Your task to perform on an android device: Show the shopping cart on ebay.com. Add "bose soundsport free" to the cart on ebay.com, then select checkout. Image 0: 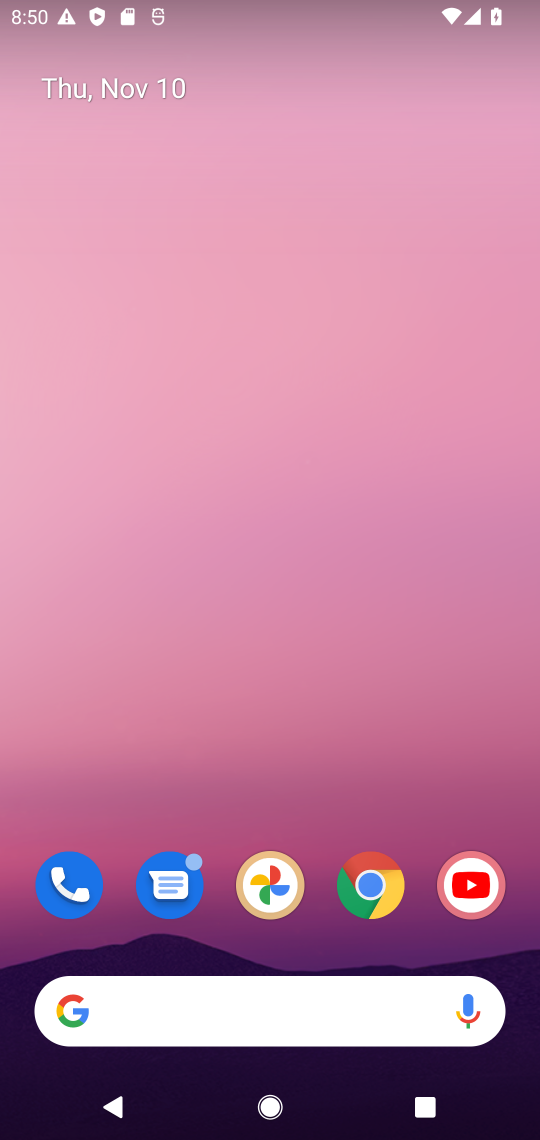
Step 0: click (369, 897)
Your task to perform on an android device: Show the shopping cart on ebay.com. Add "bose soundsport free" to the cart on ebay.com, then select checkout. Image 1: 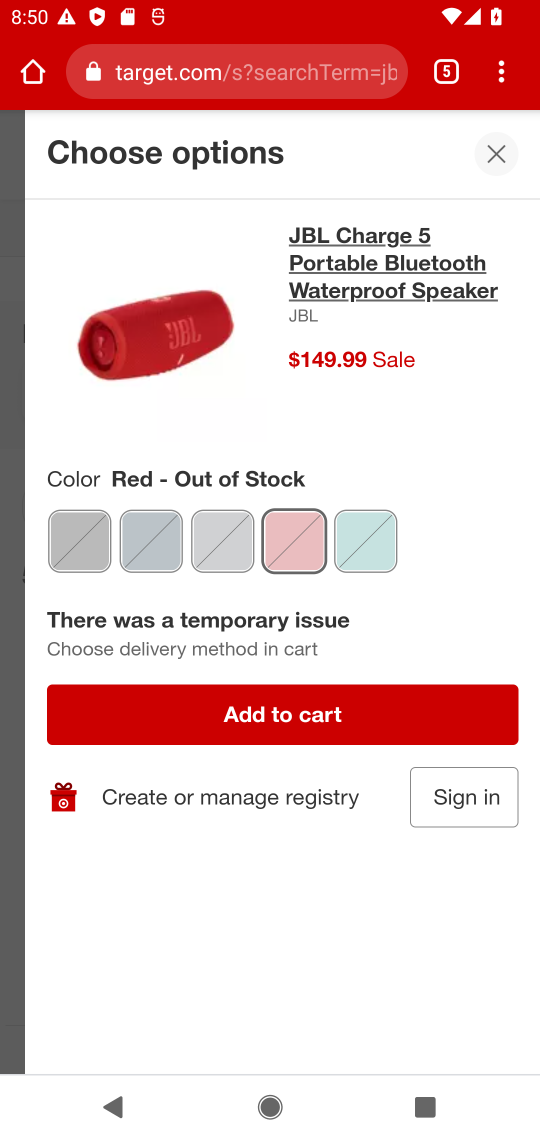
Step 1: click (450, 79)
Your task to perform on an android device: Show the shopping cart on ebay.com. Add "bose soundsport free" to the cart on ebay.com, then select checkout. Image 2: 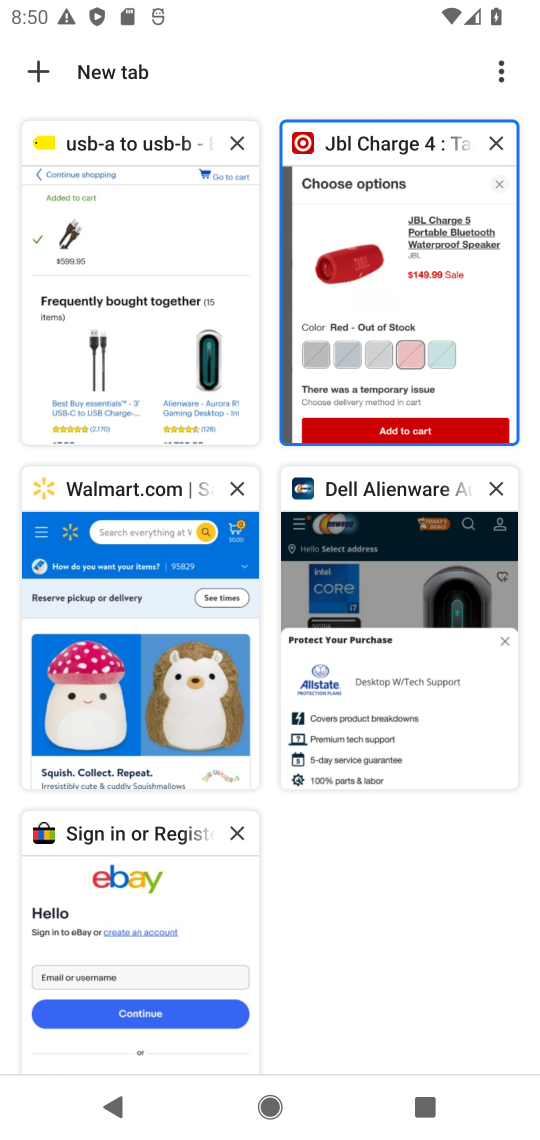
Step 2: click (89, 910)
Your task to perform on an android device: Show the shopping cart on ebay.com. Add "bose soundsport free" to the cart on ebay.com, then select checkout. Image 3: 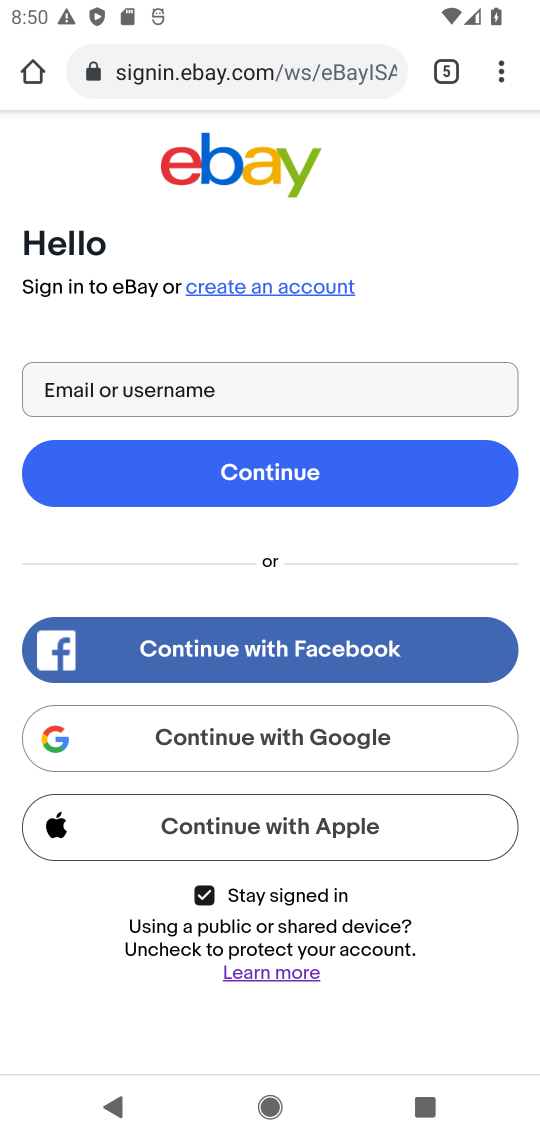
Step 3: press back button
Your task to perform on an android device: Show the shopping cart on ebay.com. Add "bose soundsport free" to the cart on ebay.com, then select checkout. Image 4: 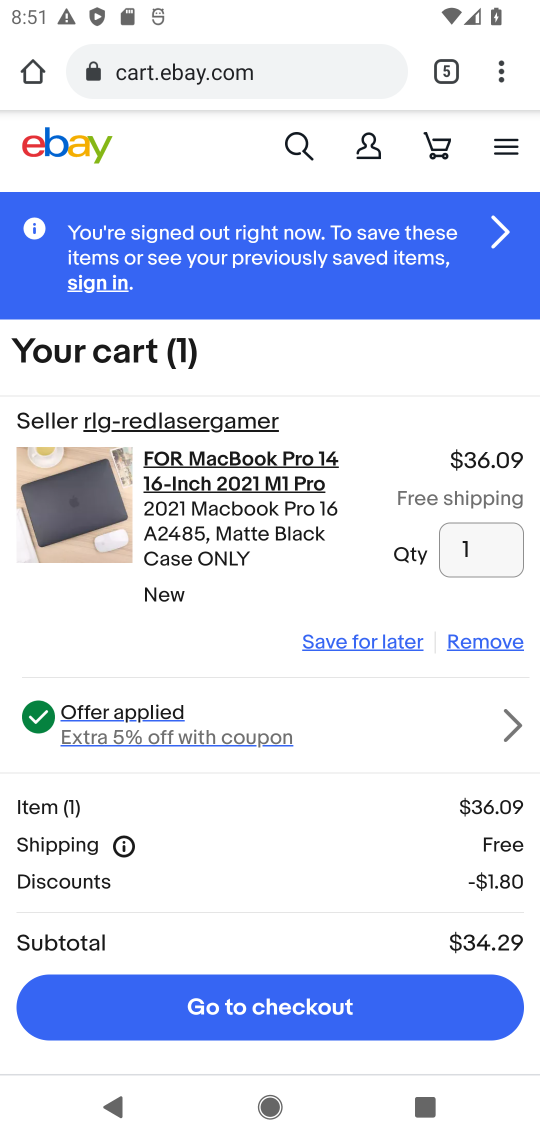
Step 4: click (290, 148)
Your task to perform on an android device: Show the shopping cart on ebay.com. Add "bose soundsport free" to the cart on ebay.com, then select checkout. Image 5: 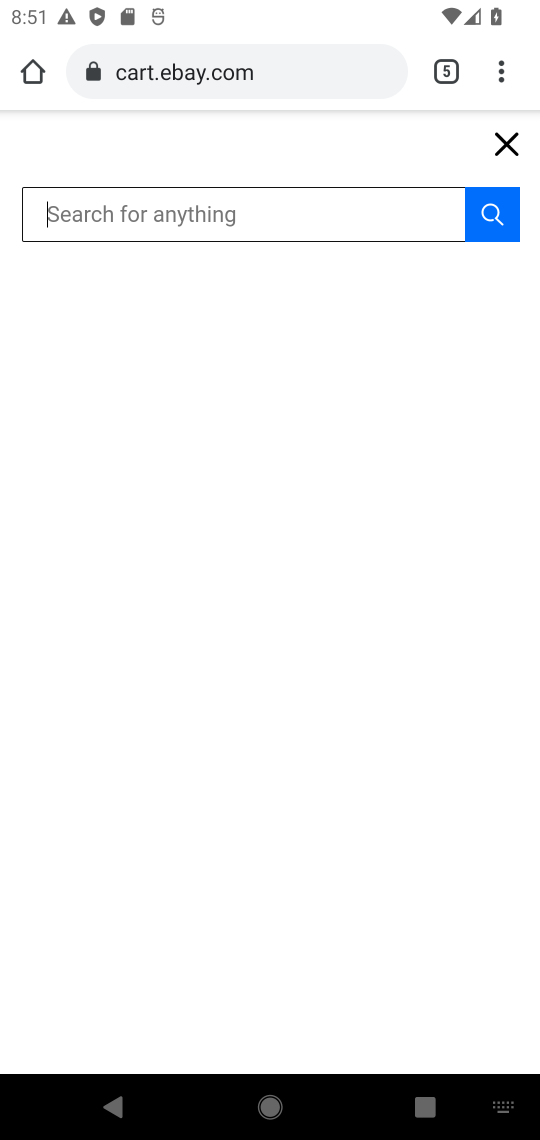
Step 5: type "bose soundsport free"
Your task to perform on an android device: Show the shopping cart on ebay.com. Add "bose soundsport free" to the cart on ebay.com, then select checkout. Image 6: 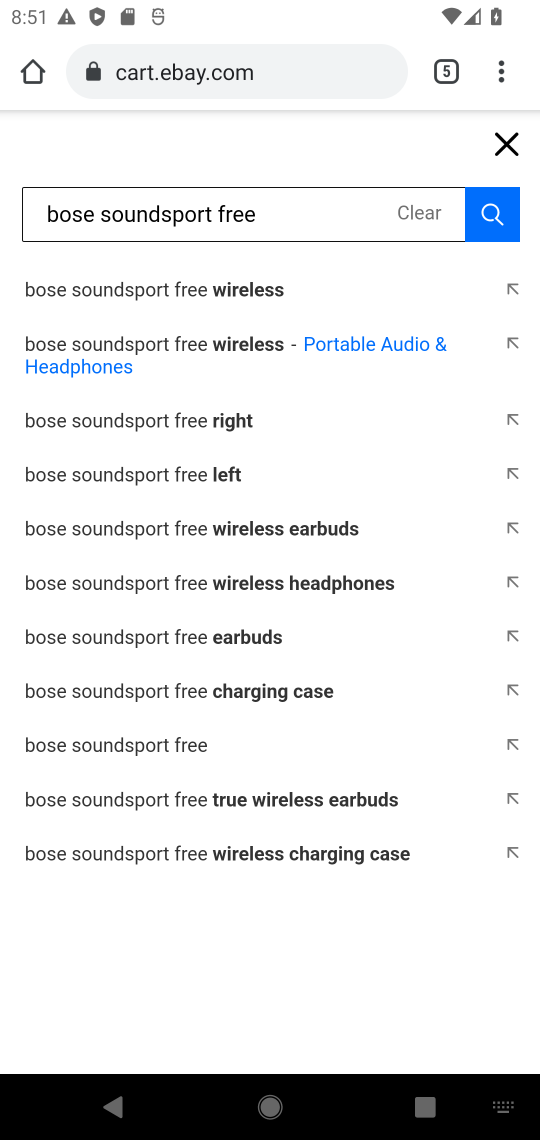
Step 6: click (199, 340)
Your task to perform on an android device: Show the shopping cart on ebay.com. Add "bose soundsport free" to the cart on ebay.com, then select checkout. Image 7: 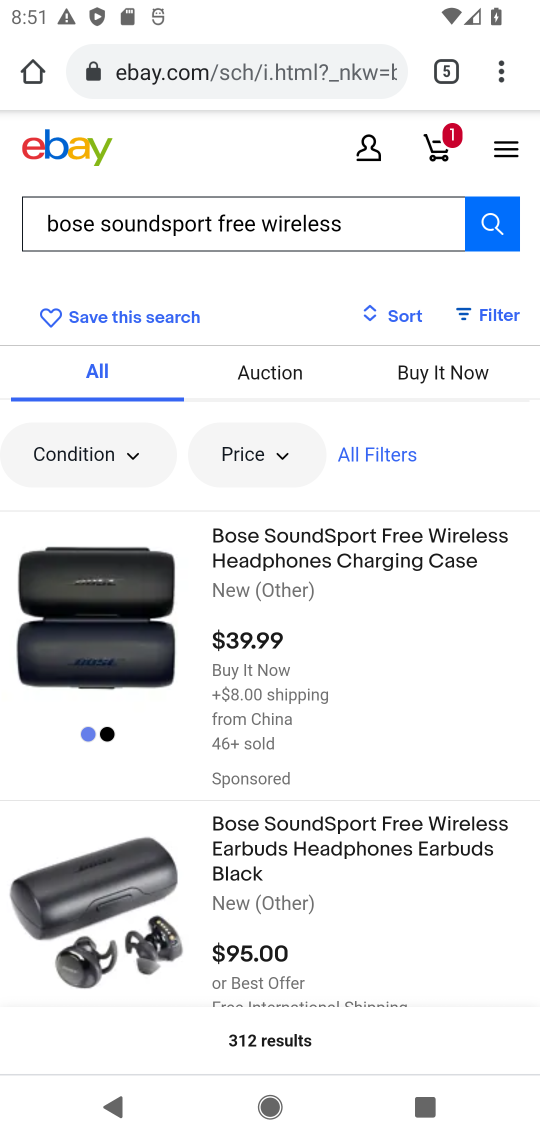
Step 7: click (356, 555)
Your task to perform on an android device: Show the shopping cart on ebay.com. Add "bose soundsport free" to the cart on ebay.com, then select checkout. Image 8: 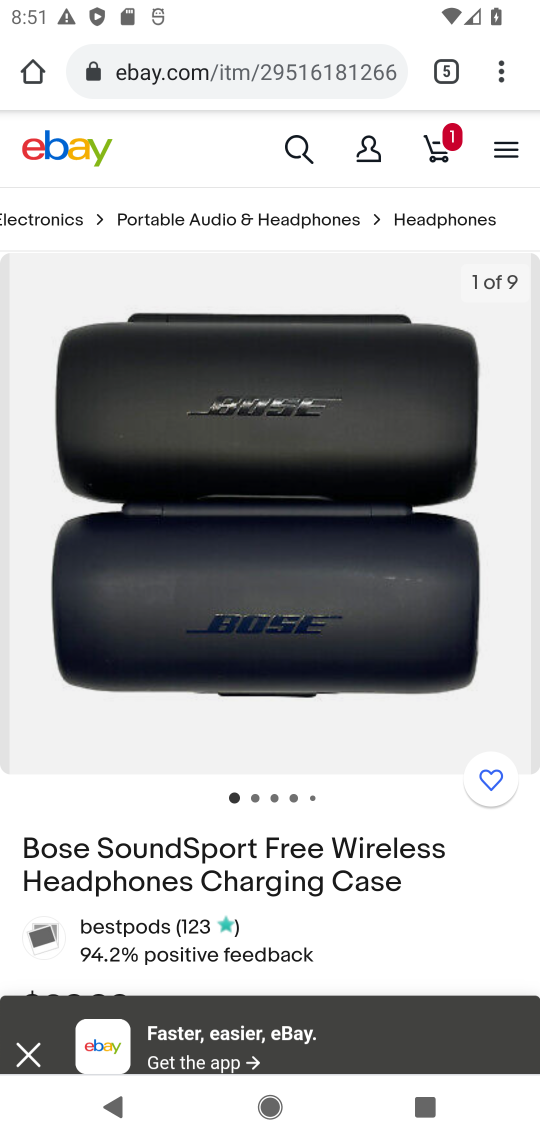
Step 8: drag from (394, 921) to (488, 362)
Your task to perform on an android device: Show the shopping cart on ebay.com. Add "bose soundsport free" to the cart on ebay.com, then select checkout. Image 9: 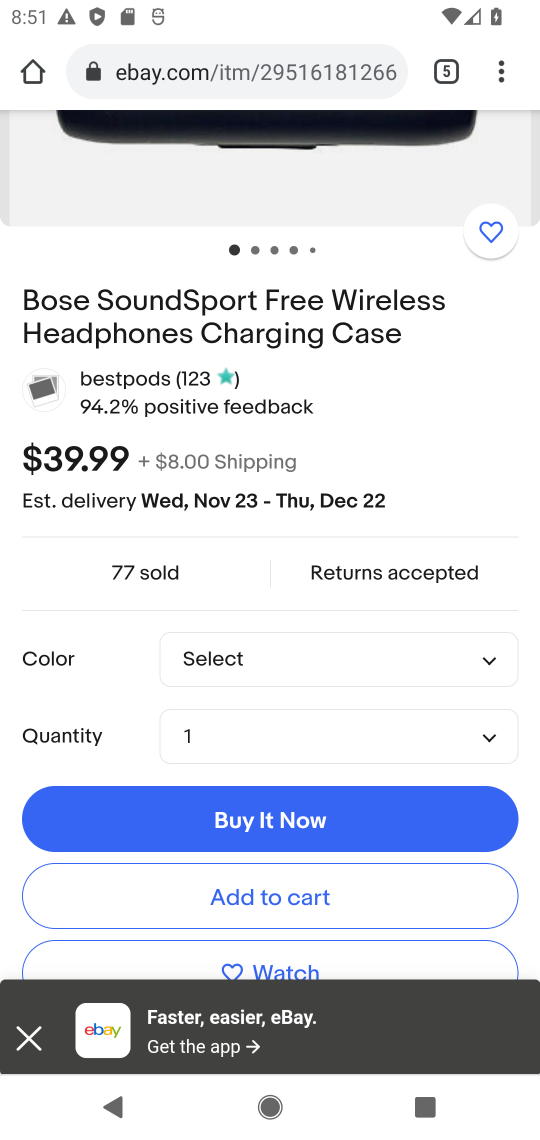
Step 9: click (23, 1045)
Your task to perform on an android device: Show the shopping cart on ebay.com. Add "bose soundsport free" to the cart on ebay.com, then select checkout. Image 10: 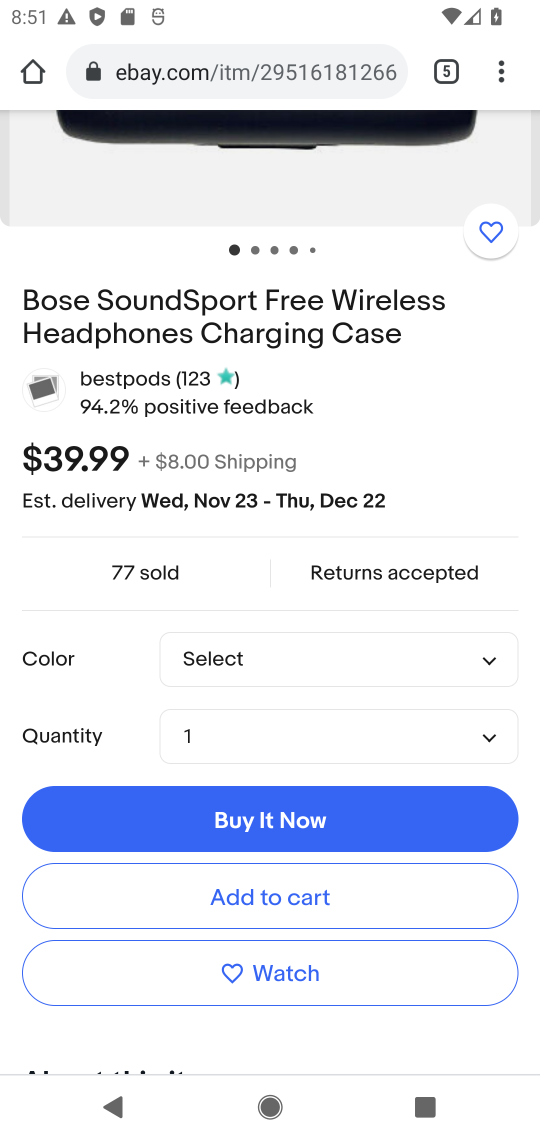
Step 10: click (295, 897)
Your task to perform on an android device: Show the shopping cart on ebay.com. Add "bose soundsport free" to the cart on ebay.com, then select checkout. Image 11: 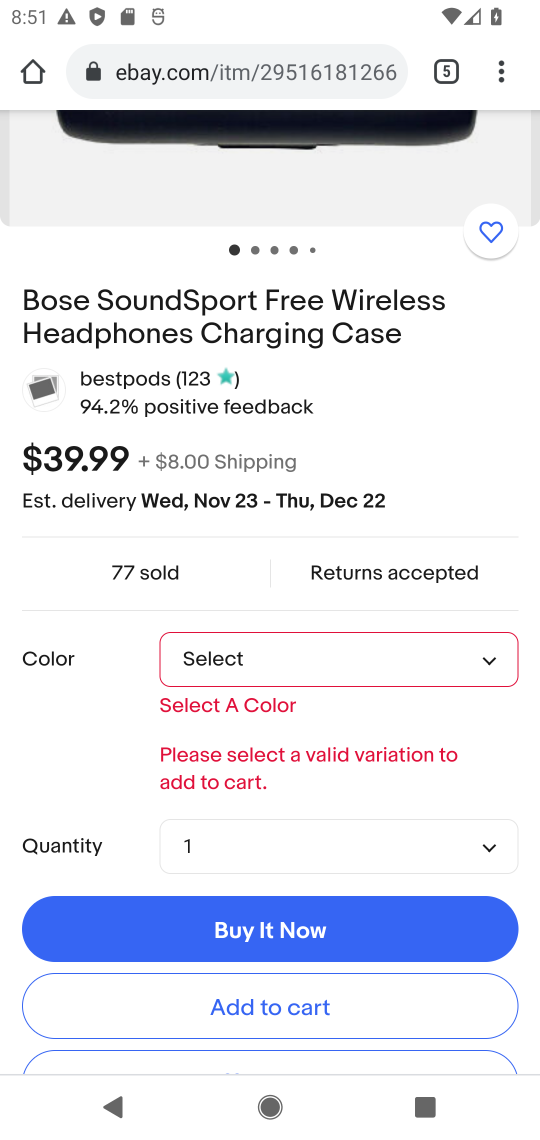
Step 11: click (496, 661)
Your task to perform on an android device: Show the shopping cart on ebay.com. Add "bose soundsport free" to the cart on ebay.com, then select checkout. Image 12: 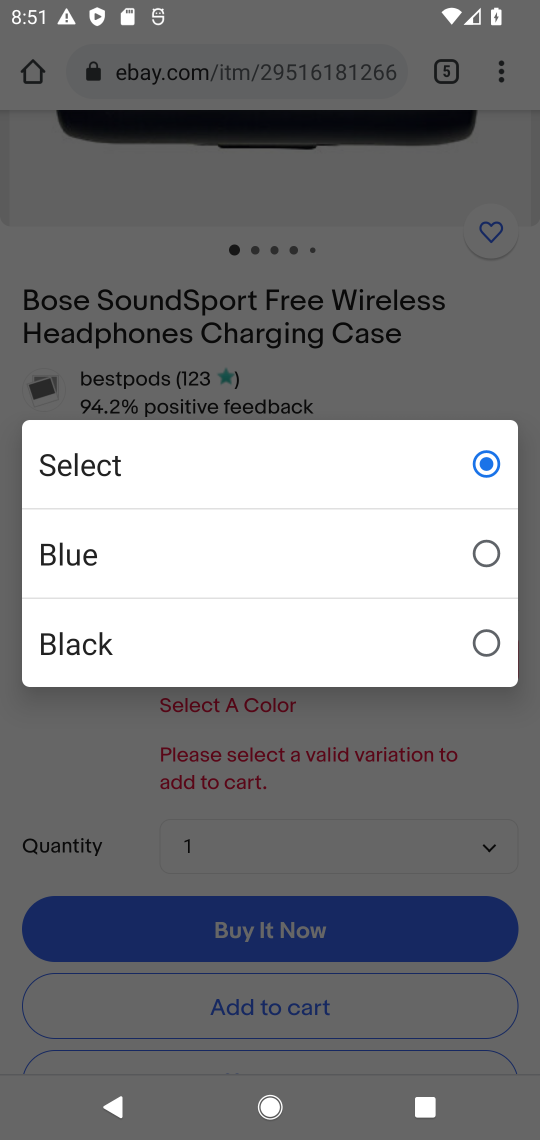
Step 12: click (492, 554)
Your task to perform on an android device: Show the shopping cart on ebay.com. Add "bose soundsport free" to the cart on ebay.com, then select checkout. Image 13: 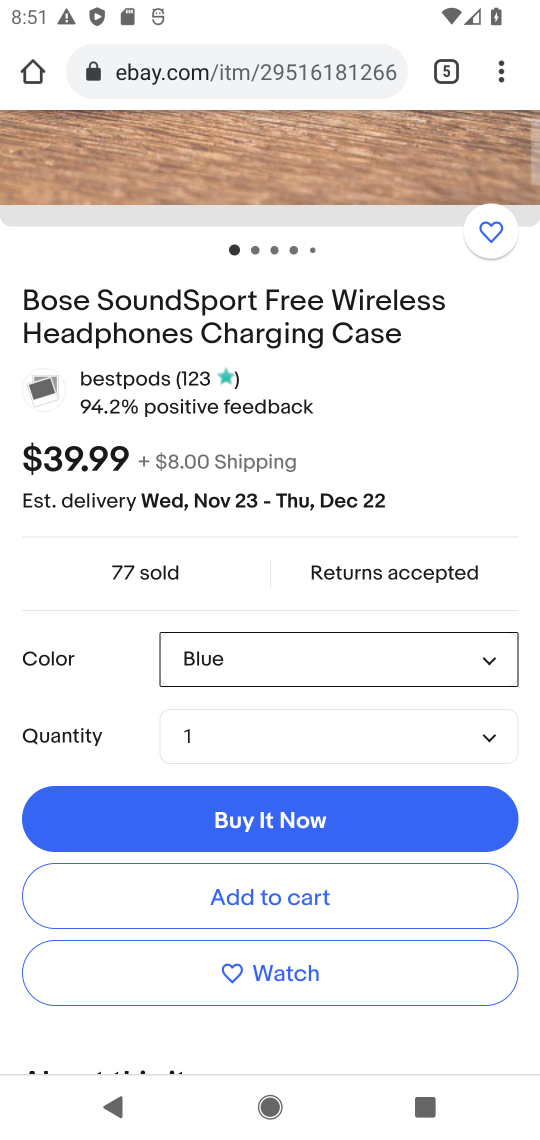
Step 13: click (241, 906)
Your task to perform on an android device: Show the shopping cart on ebay.com. Add "bose soundsport free" to the cart on ebay.com, then select checkout. Image 14: 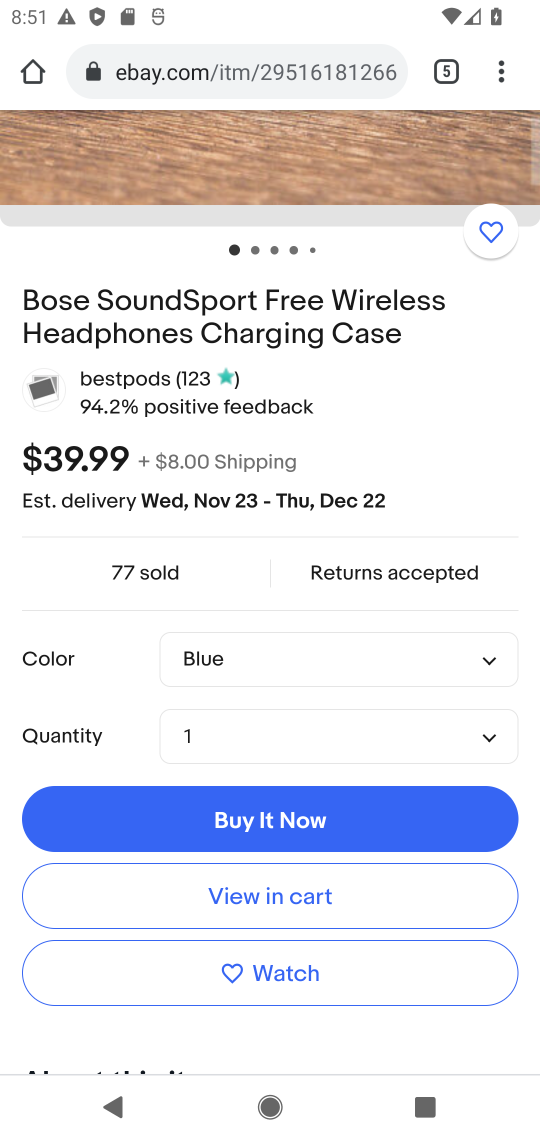
Step 14: task complete